Your task to perform on an android device: Show me popular games on the Play Store Image 0: 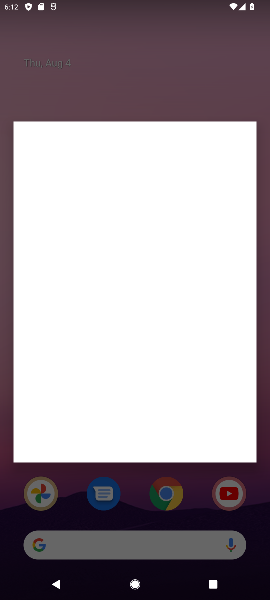
Step 0: press home button
Your task to perform on an android device: Show me popular games on the Play Store Image 1: 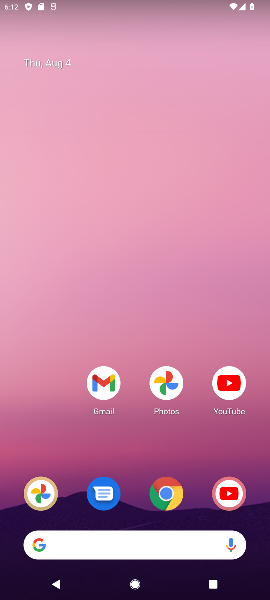
Step 1: drag from (139, 456) to (165, 71)
Your task to perform on an android device: Show me popular games on the Play Store Image 2: 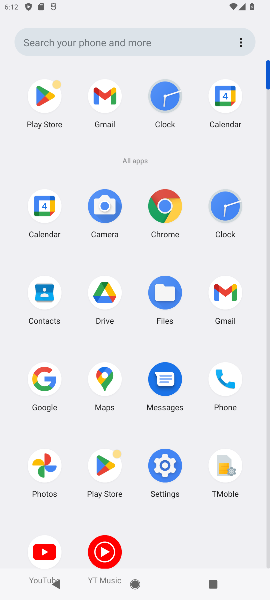
Step 2: click (104, 457)
Your task to perform on an android device: Show me popular games on the Play Store Image 3: 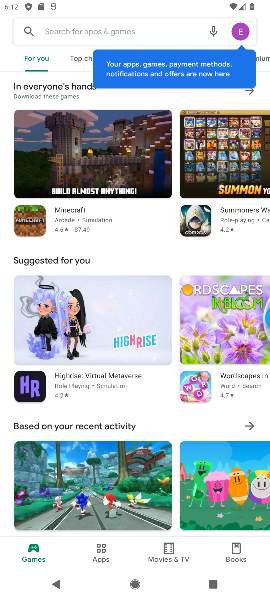
Step 3: task complete